Your task to perform on an android device: When is my next meeting? Image 0: 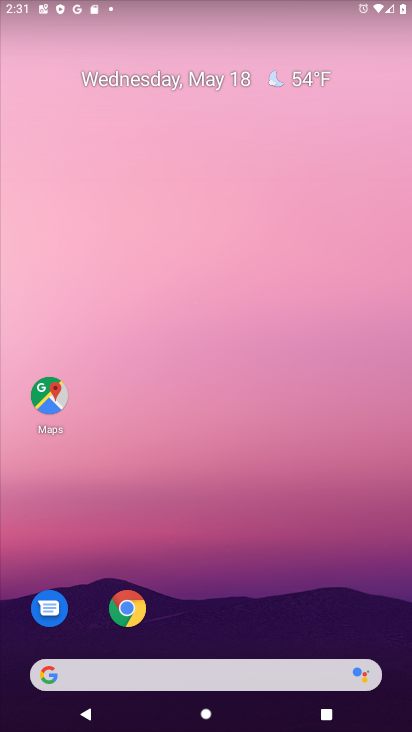
Step 0: drag from (260, 622) to (222, 1)
Your task to perform on an android device: When is my next meeting? Image 1: 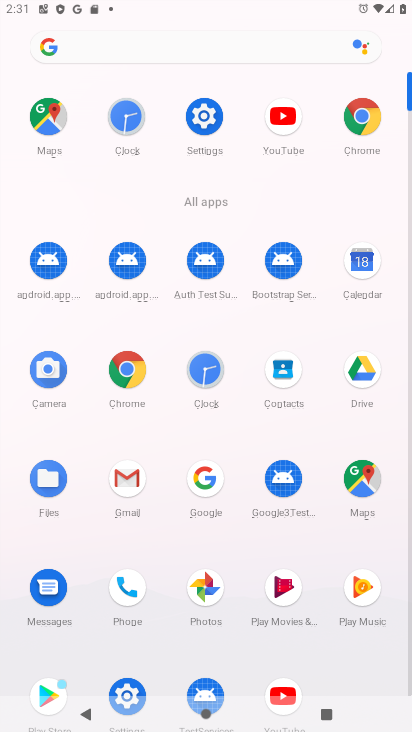
Step 1: click (361, 268)
Your task to perform on an android device: When is my next meeting? Image 2: 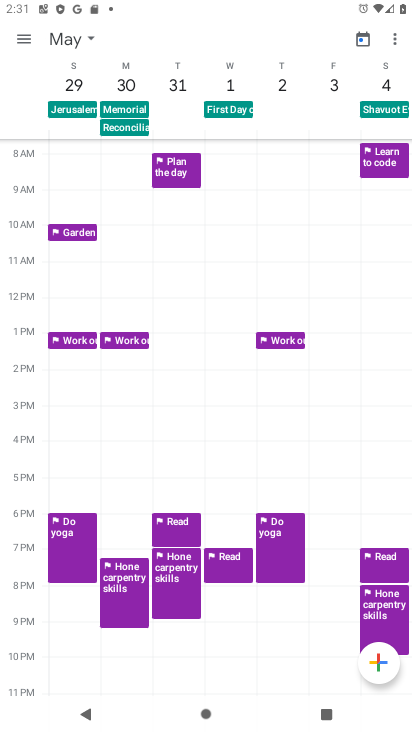
Step 2: click (30, 40)
Your task to perform on an android device: When is my next meeting? Image 3: 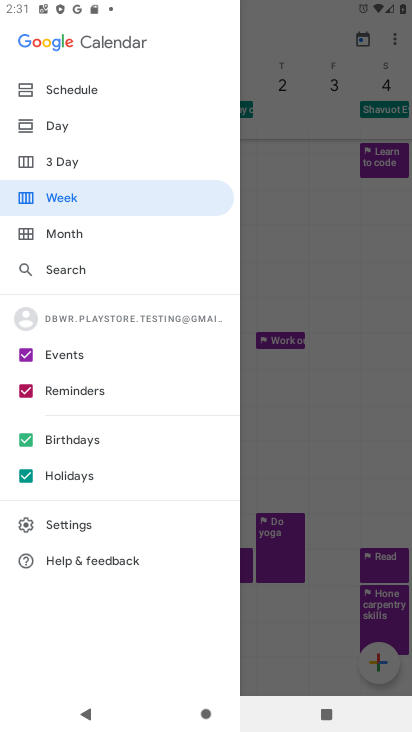
Step 3: click (45, 95)
Your task to perform on an android device: When is my next meeting? Image 4: 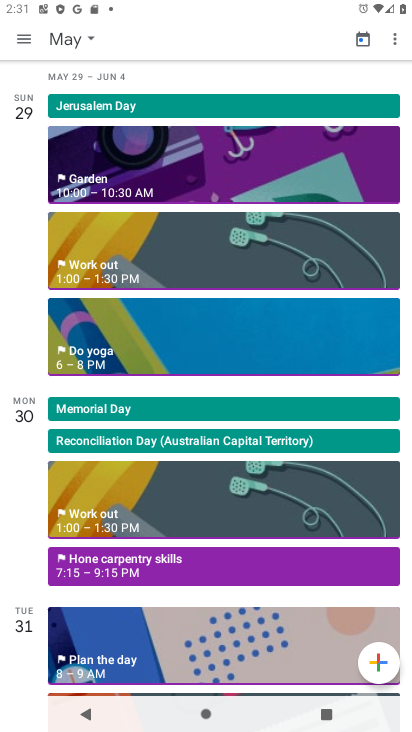
Step 4: click (359, 42)
Your task to perform on an android device: When is my next meeting? Image 5: 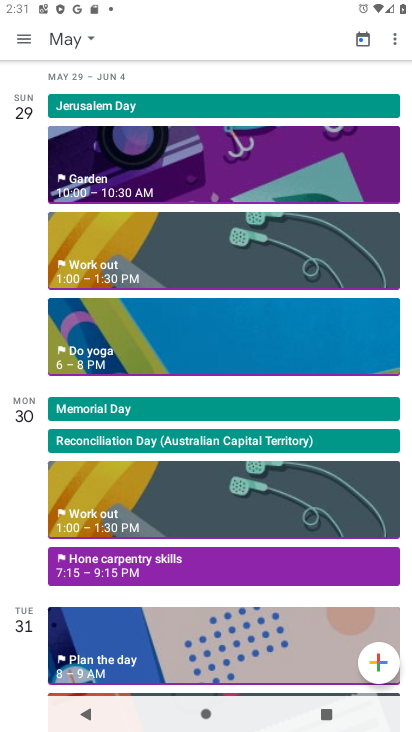
Step 5: click (357, 41)
Your task to perform on an android device: When is my next meeting? Image 6: 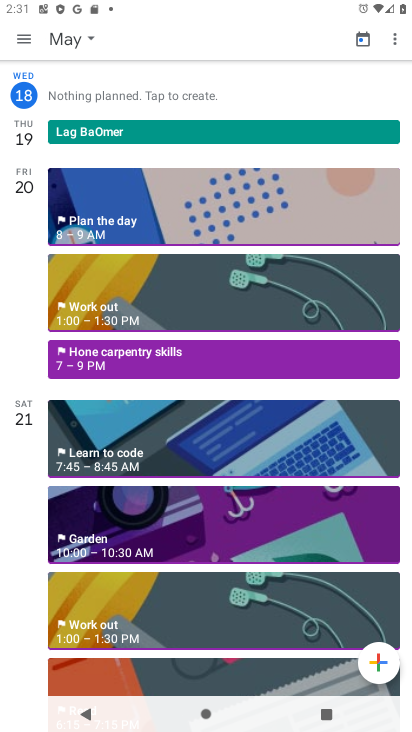
Step 6: click (151, 360)
Your task to perform on an android device: When is my next meeting? Image 7: 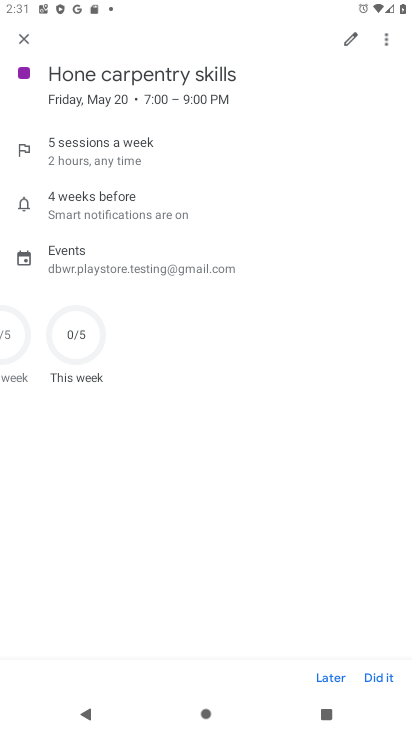
Step 7: task complete